Your task to perform on an android device: move a message to another label in the gmail app Image 0: 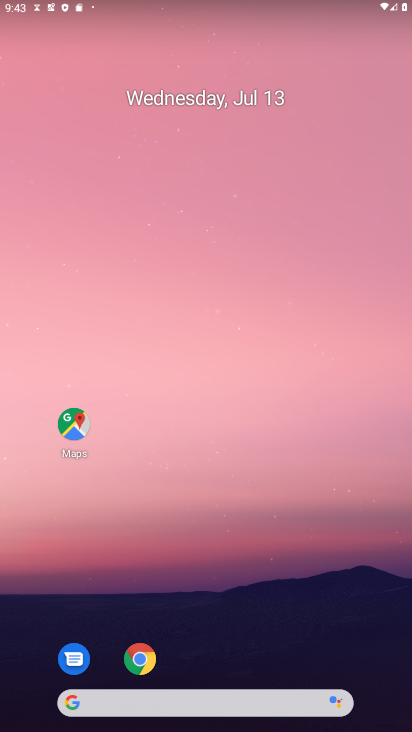
Step 0: drag from (220, 708) to (282, 135)
Your task to perform on an android device: move a message to another label in the gmail app Image 1: 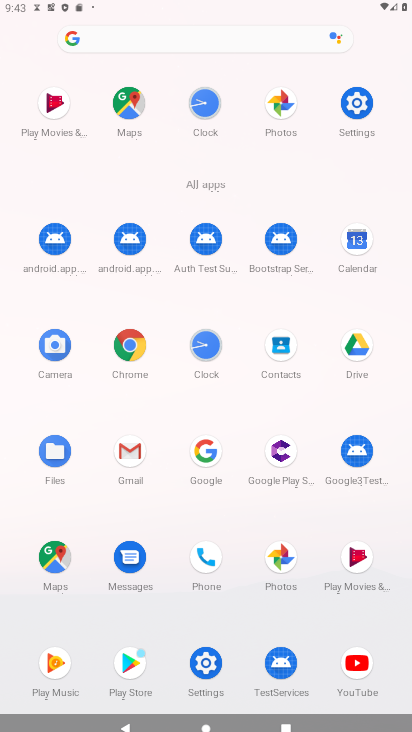
Step 1: click (125, 468)
Your task to perform on an android device: move a message to another label in the gmail app Image 2: 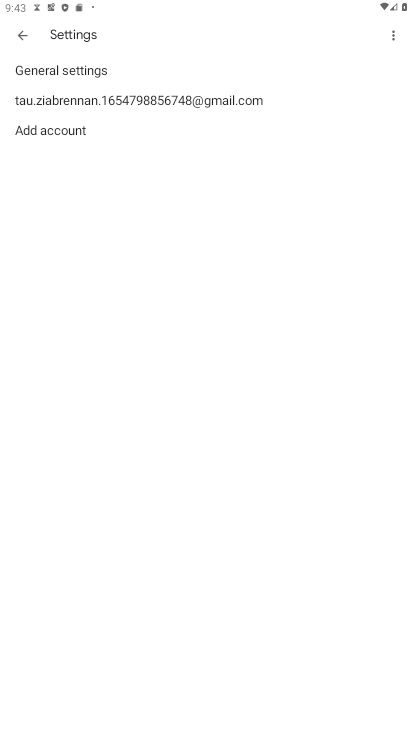
Step 2: click (18, 35)
Your task to perform on an android device: move a message to another label in the gmail app Image 3: 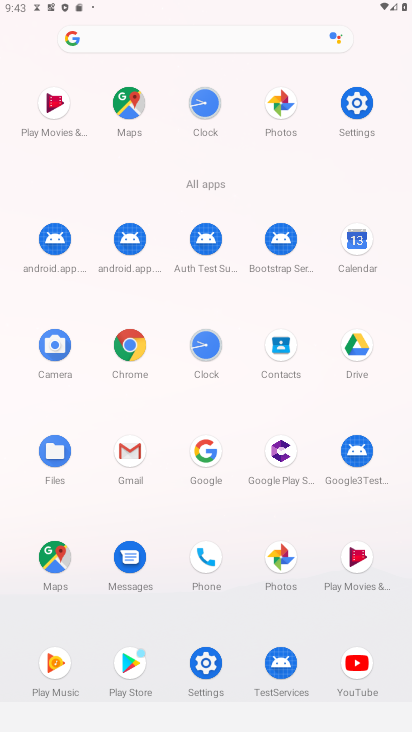
Step 3: click (120, 454)
Your task to perform on an android device: move a message to another label in the gmail app Image 4: 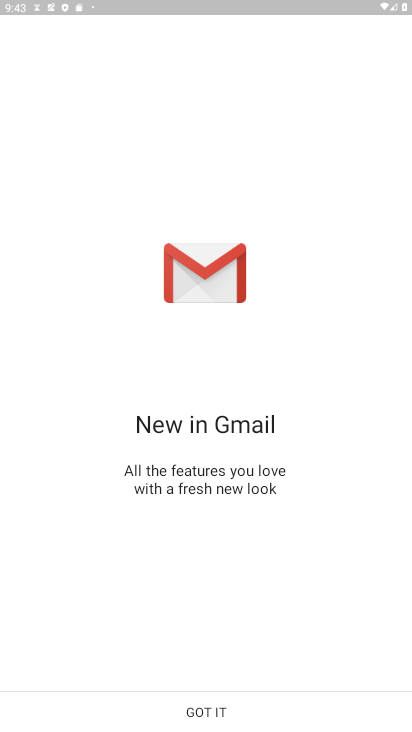
Step 4: click (201, 719)
Your task to perform on an android device: move a message to another label in the gmail app Image 5: 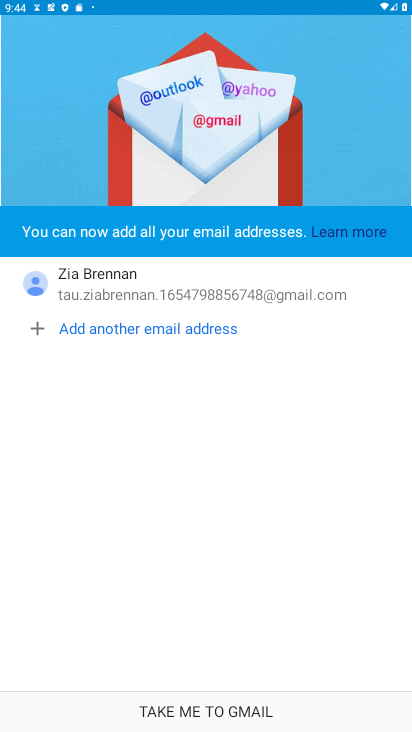
Step 5: click (201, 719)
Your task to perform on an android device: move a message to another label in the gmail app Image 6: 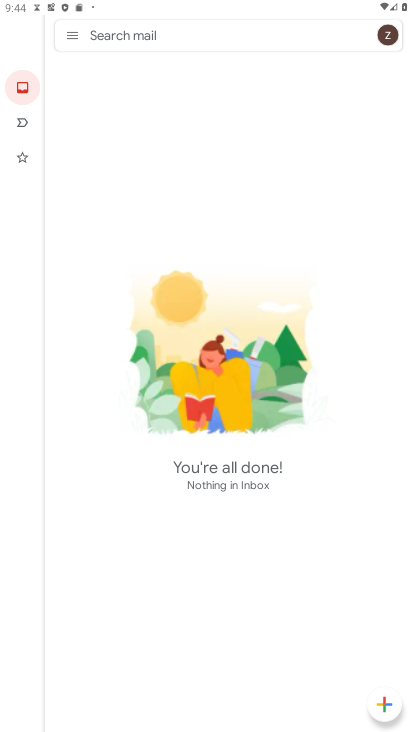
Step 6: task complete